Your task to perform on an android device: turn off smart reply in the gmail app Image 0: 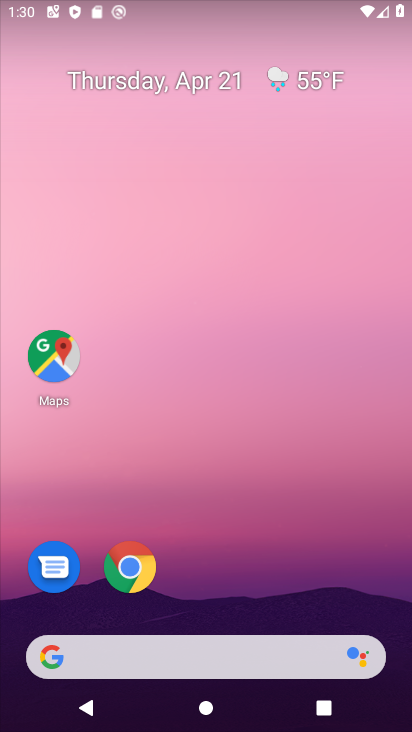
Step 0: drag from (223, 592) to (159, 114)
Your task to perform on an android device: turn off smart reply in the gmail app Image 1: 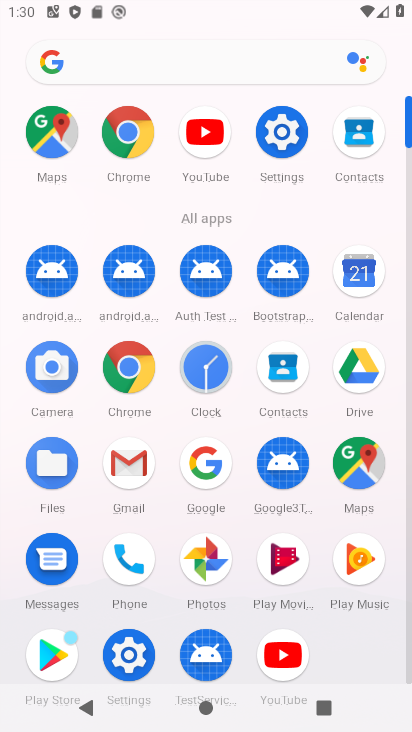
Step 1: click (137, 468)
Your task to perform on an android device: turn off smart reply in the gmail app Image 2: 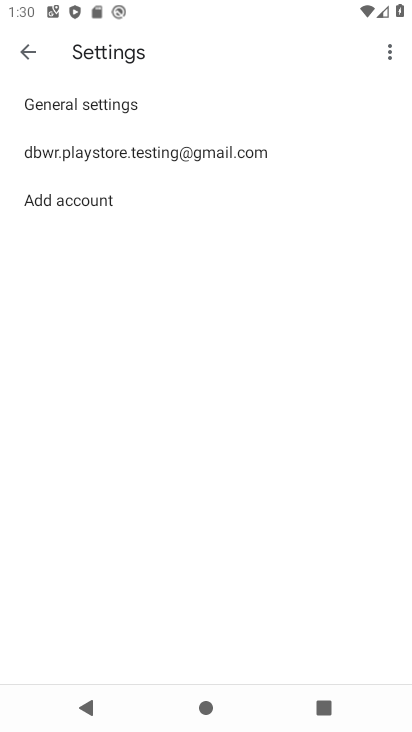
Step 2: click (181, 153)
Your task to perform on an android device: turn off smart reply in the gmail app Image 3: 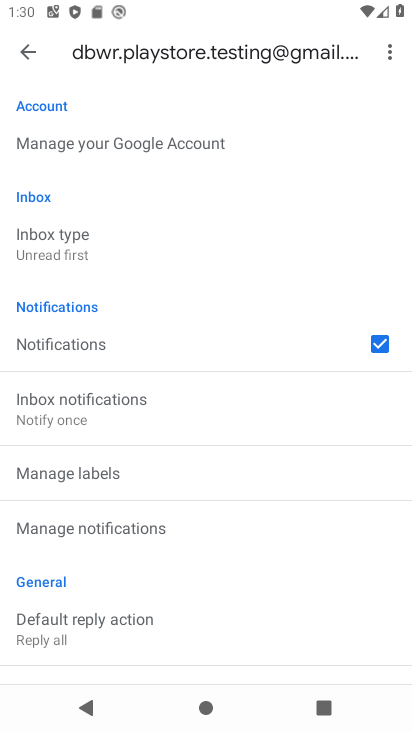
Step 3: drag from (164, 581) to (179, 6)
Your task to perform on an android device: turn off smart reply in the gmail app Image 4: 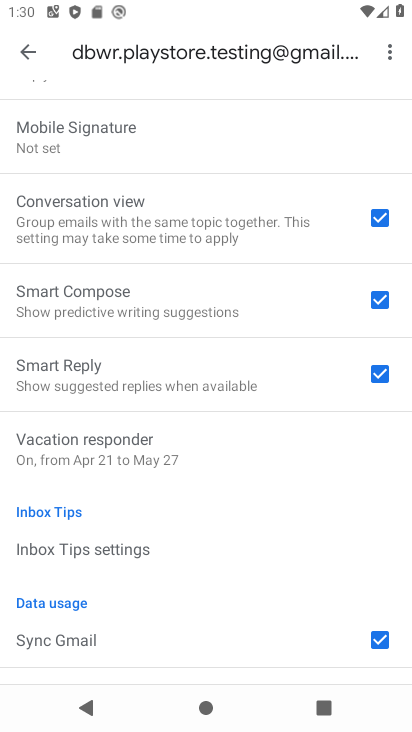
Step 4: click (374, 367)
Your task to perform on an android device: turn off smart reply in the gmail app Image 5: 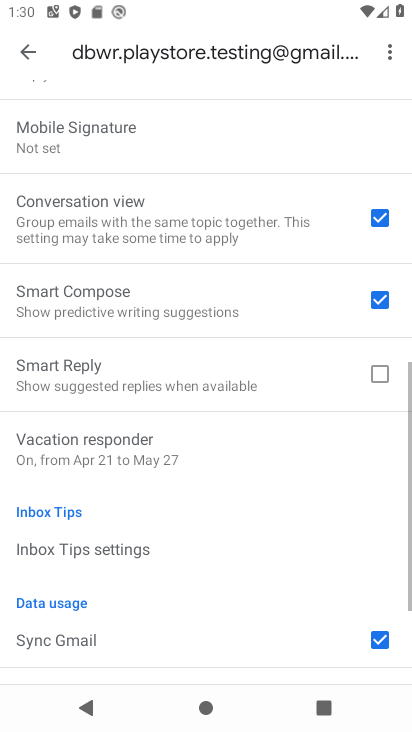
Step 5: task complete